Your task to perform on an android device: install app "Google News" Image 0: 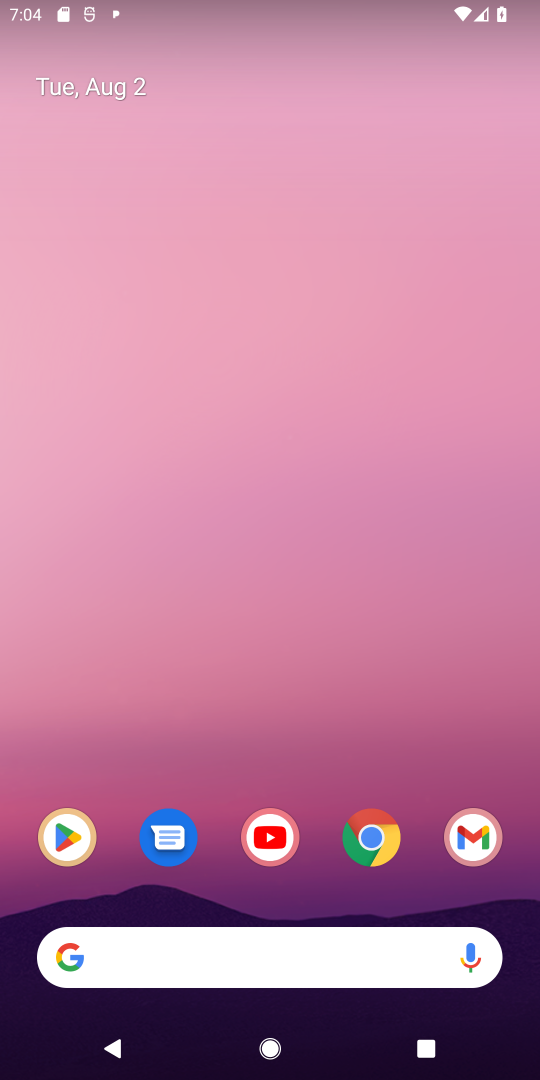
Step 0: click (66, 844)
Your task to perform on an android device: install app "Google News" Image 1: 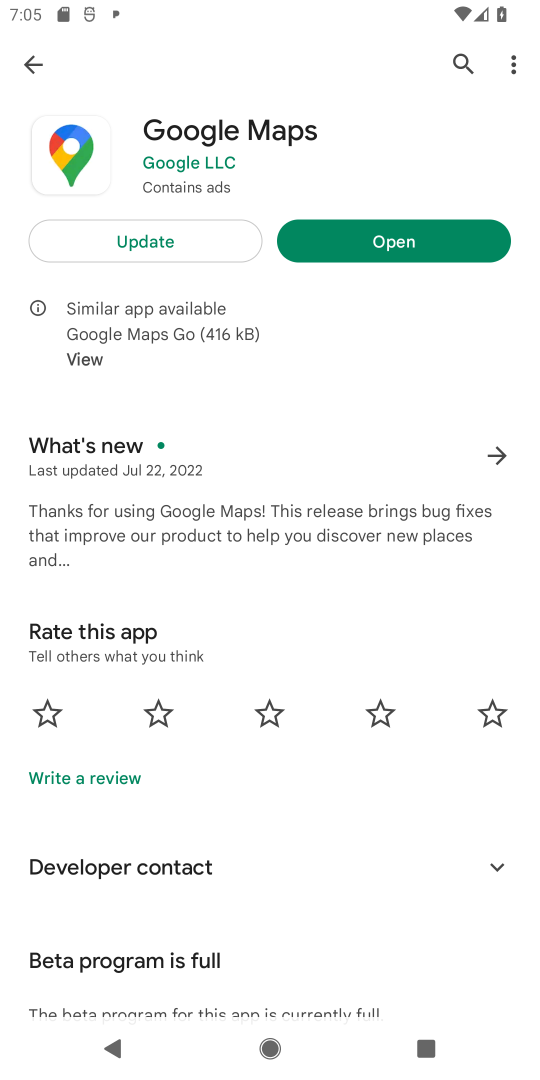
Step 1: click (466, 53)
Your task to perform on an android device: install app "Google News" Image 2: 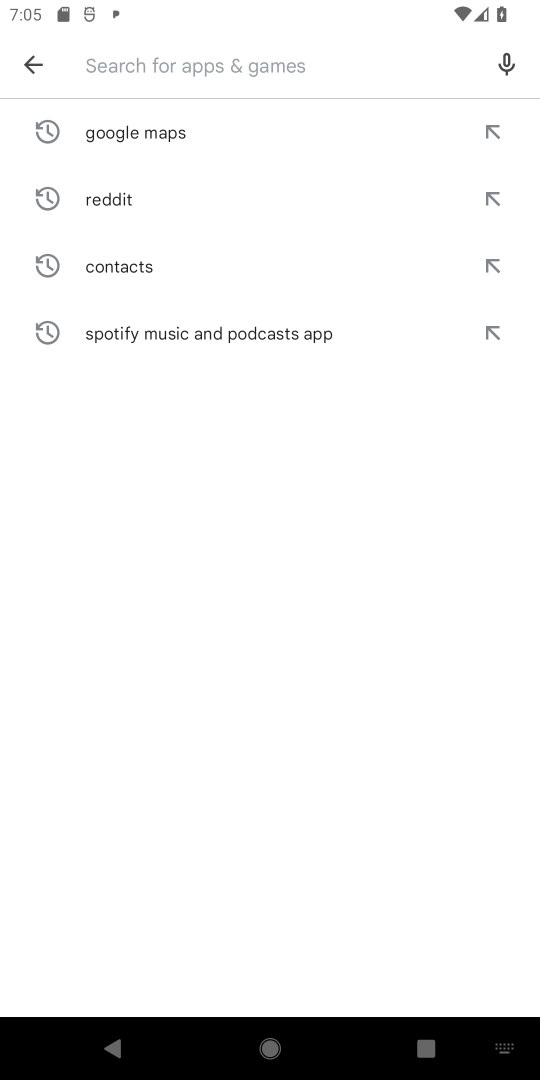
Step 2: type "Google News"
Your task to perform on an android device: install app "Google News" Image 3: 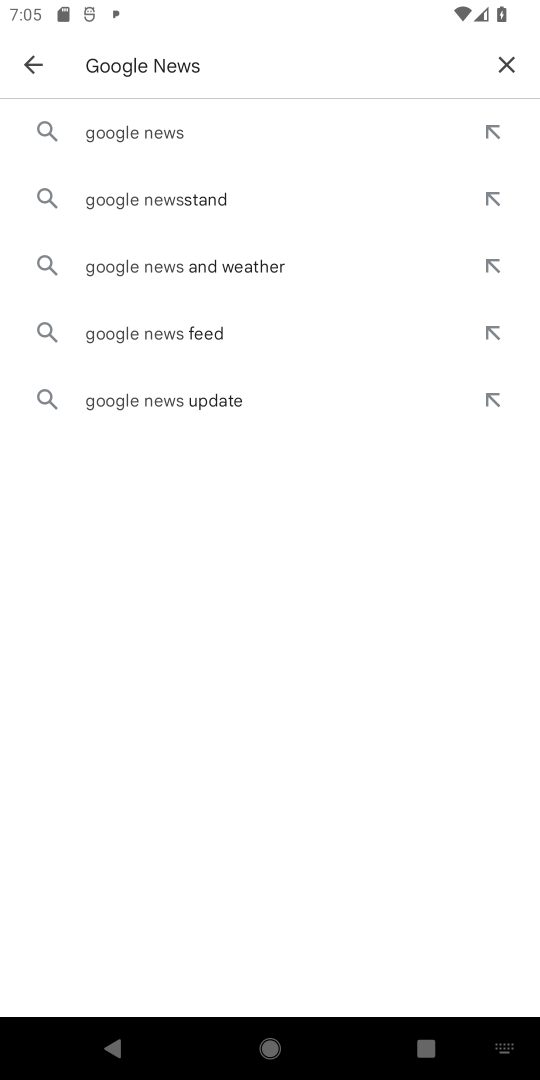
Step 3: click (141, 146)
Your task to perform on an android device: install app "Google News" Image 4: 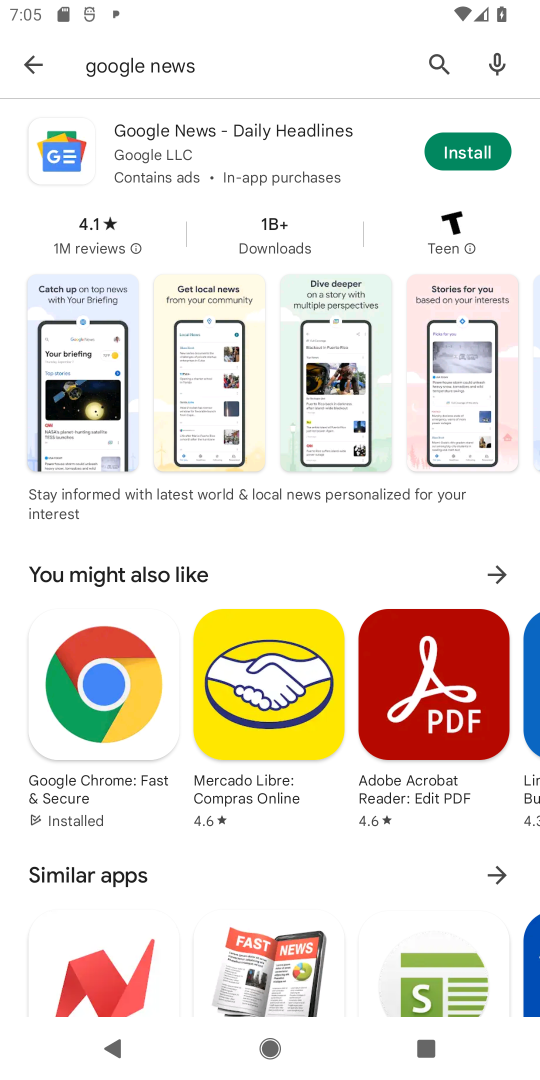
Step 4: click (449, 156)
Your task to perform on an android device: install app "Google News" Image 5: 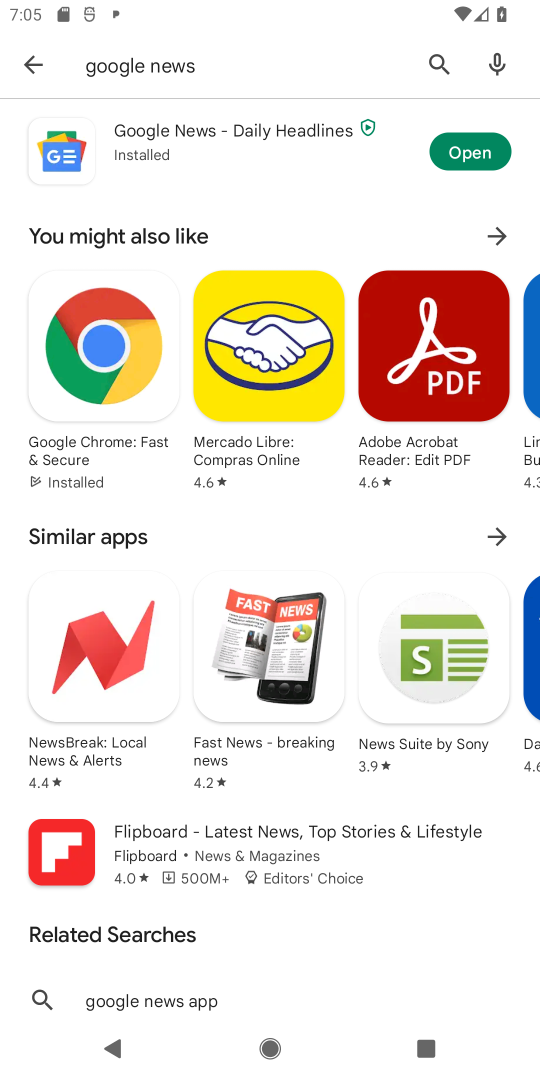
Step 5: task complete